Your task to perform on an android device: Open maps Image 0: 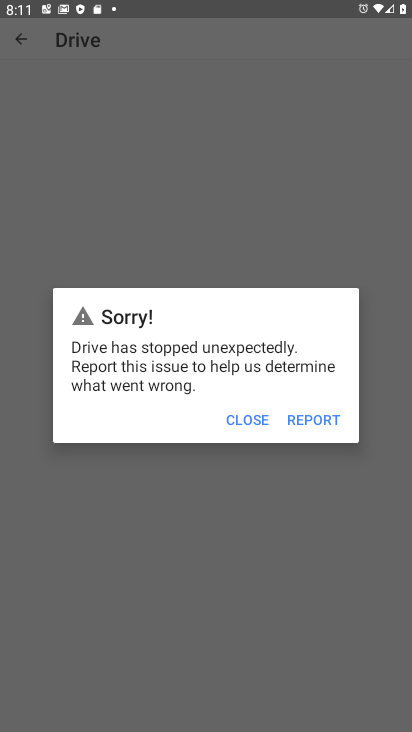
Step 0: press home button
Your task to perform on an android device: Open maps Image 1: 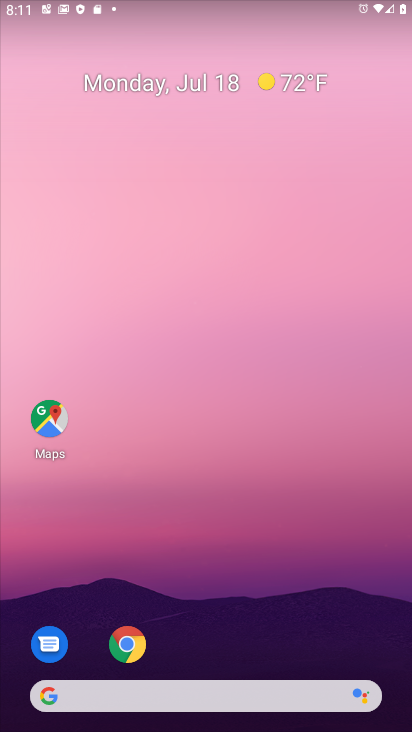
Step 1: drag from (393, 679) to (291, 17)
Your task to perform on an android device: Open maps Image 2: 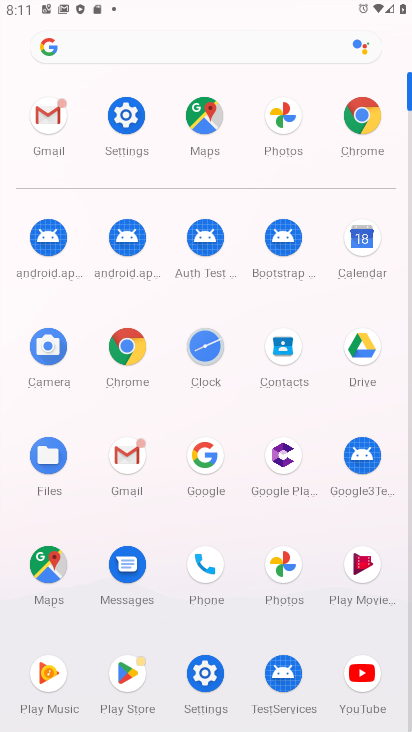
Step 2: click (48, 568)
Your task to perform on an android device: Open maps Image 3: 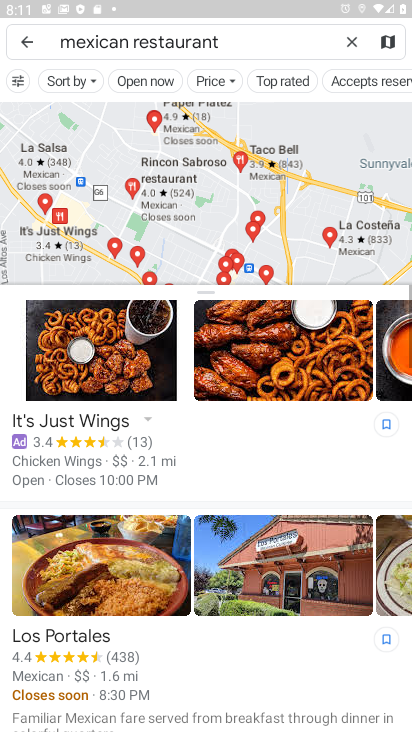
Step 3: click (346, 41)
Your task to perform on an android device: Open maps Image 4: 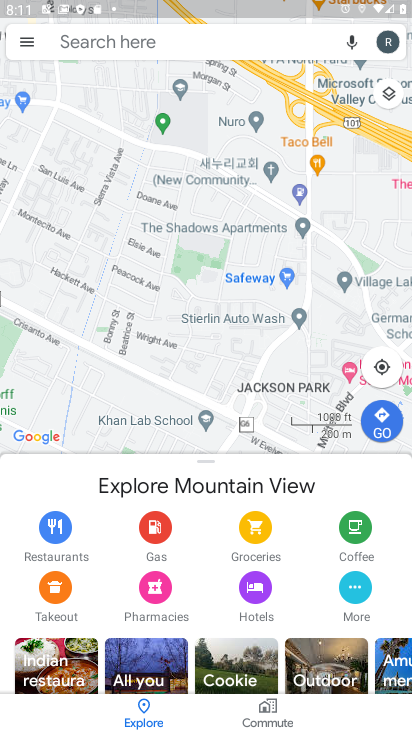
Step 4: task complete